Your task to perform on an android device: install app "WhatsApp Messenger" Image 0: 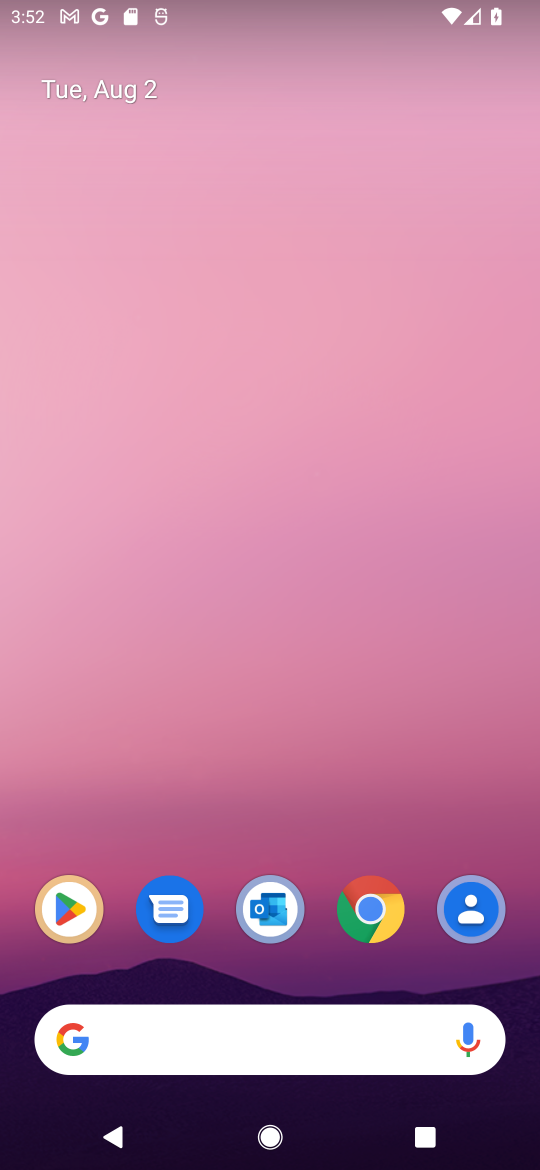
Step 0: click (70, 908)
Your task to perform on an android device: install app "WhatsApp Messenger" Image 1: 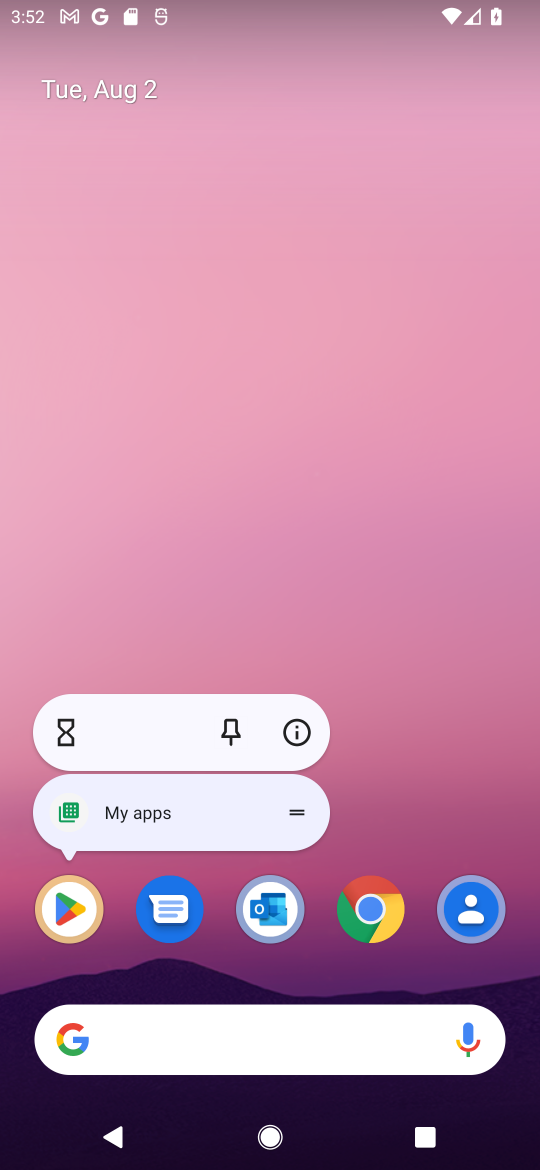
Step 1: click (291, 746)
Your task to perform on an android device: install app "WhatsApp Messenger" Image 2: 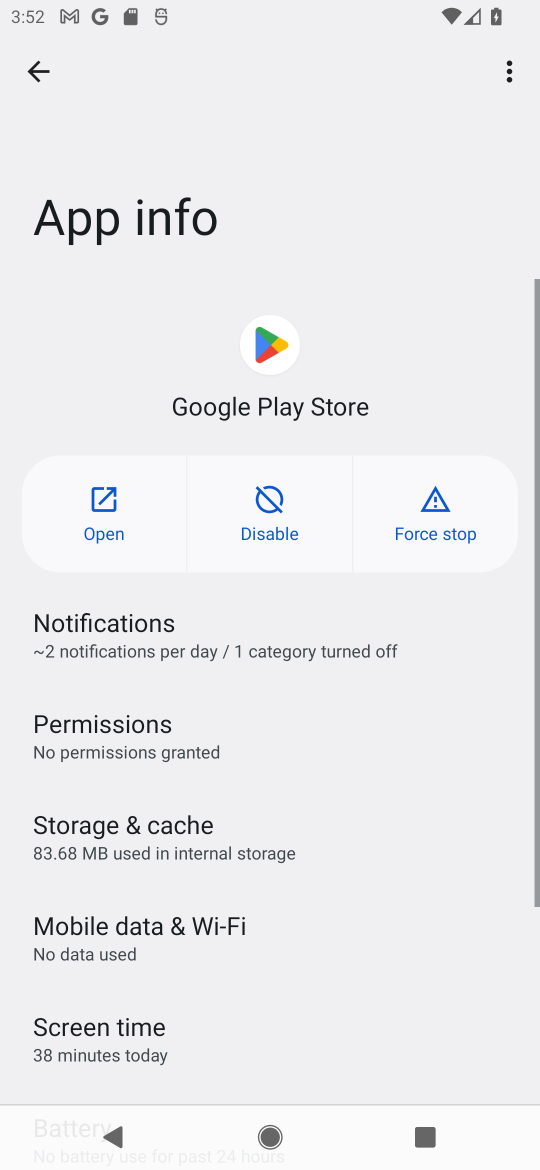
Step 2: click (83, 515)
Your task to perform on an android device: install app "WhatsApp Messenger" Image 3: 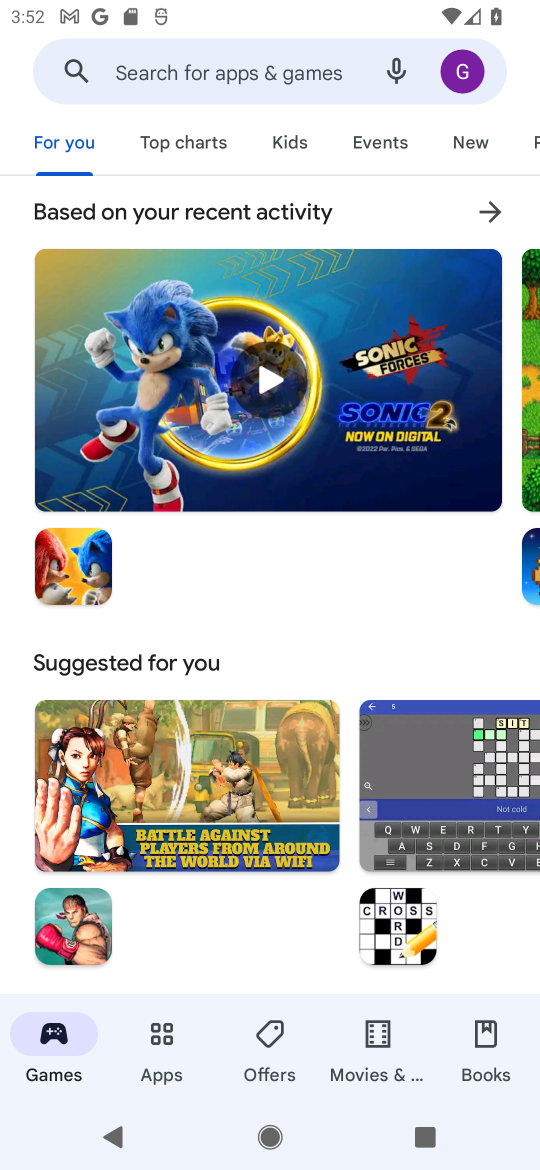
Step 3: click (218, 79)
Your task to perform on an android device: install app "WhatsApp Messenger" Image 4: 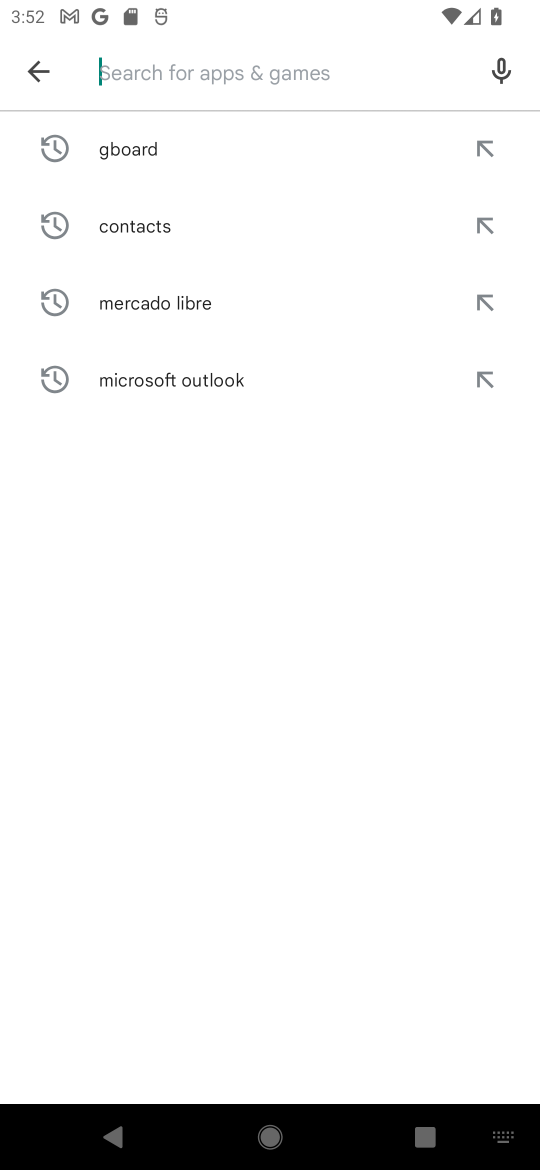
Step 4: type "WhatsApp Messenger"
Your task to perform on an android device: install app "WhatsApp Messenger" Image 5: 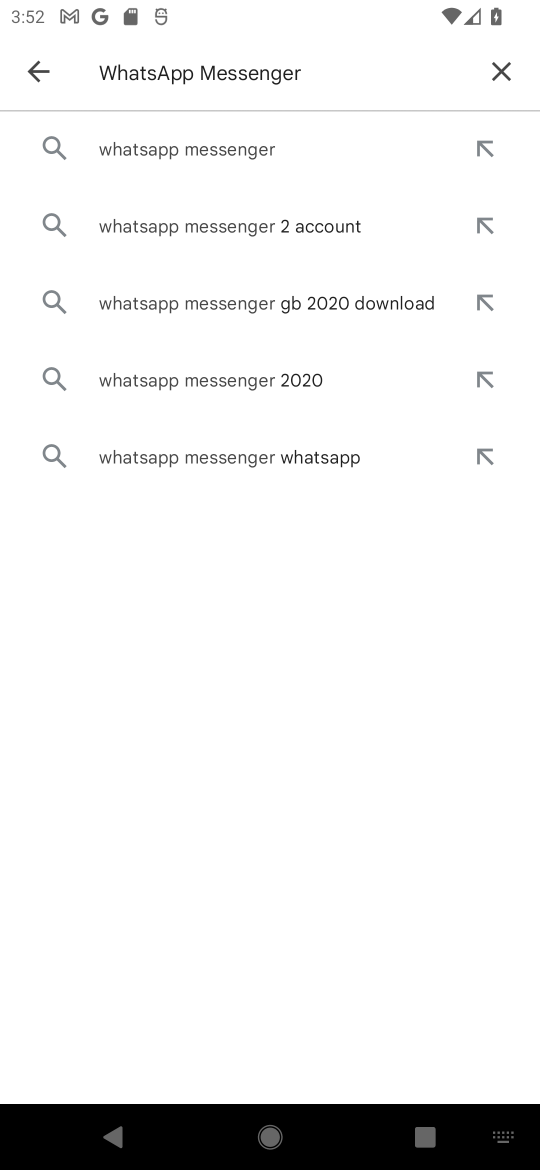
Step 5: click (204, 160)
Your task to perform on an android device: install app "WhatsApp Messenger" Image 6: 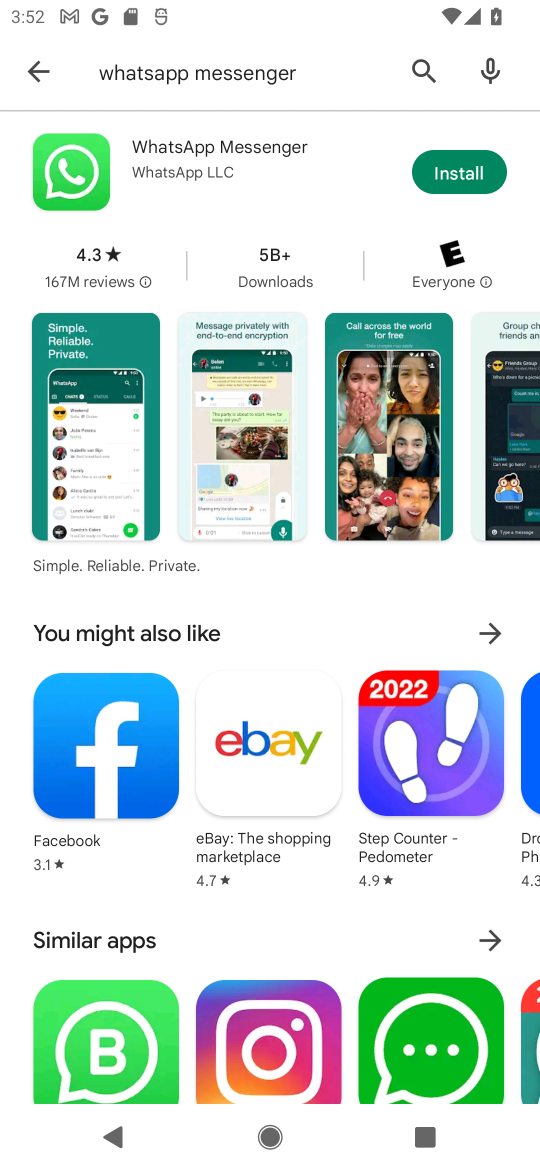
Step 6: click (193, 150)
Your task to perform on an android device: install app "WhatsApp Messenger" Image 7: 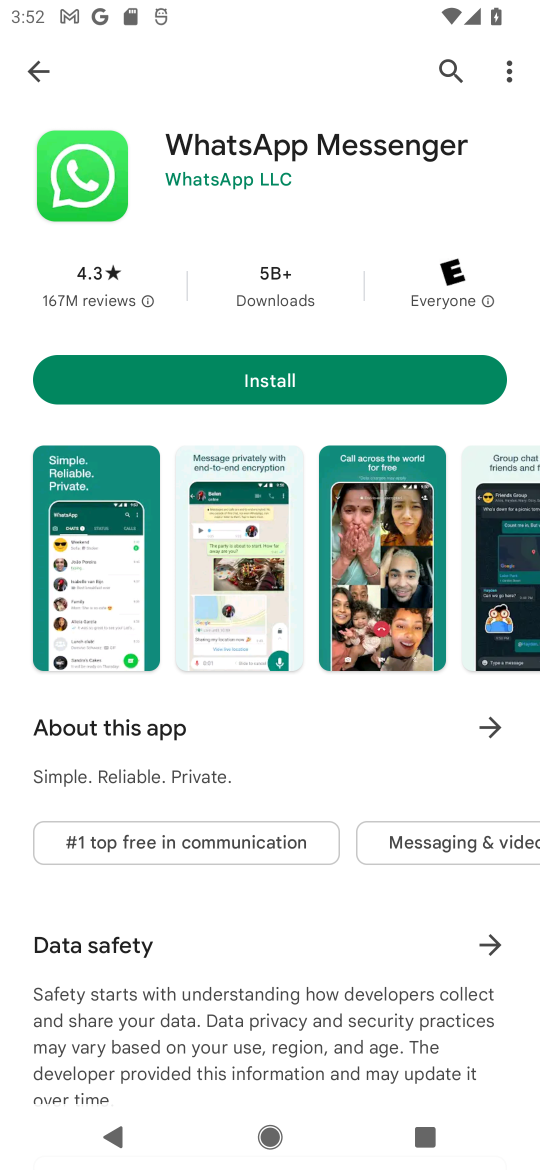
Step 7: click (179, 360)
Your task to perform on an android device: install app "WhatsApp Messenger" Image 8: 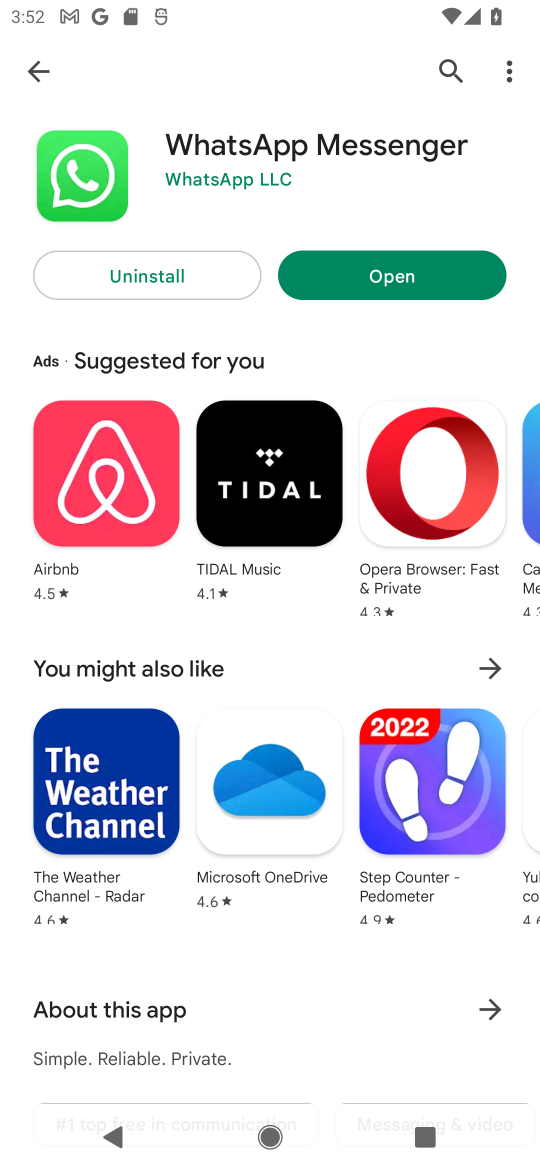
Step 8: task complete